Your task to perform on an android device: toggle javascript in the chrome app Image 0: 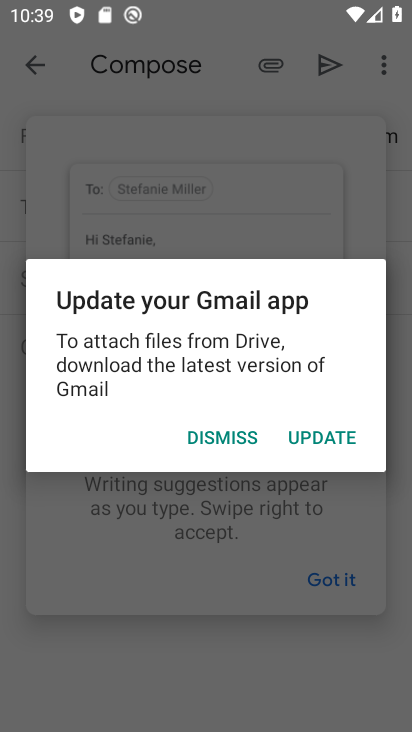
Step 0: click (346, 573)
Your task to perform on an android device: toggle javascript in the chrome app Image 1: 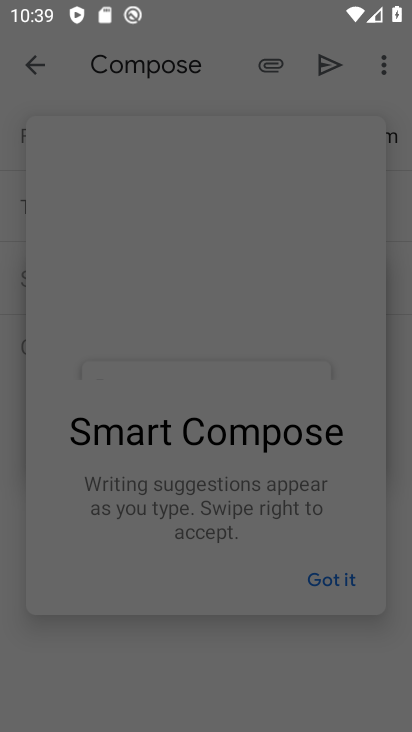
Step 1: press home button
Your task to perform on an android device: toggle javascript in the chrome app Image 2: 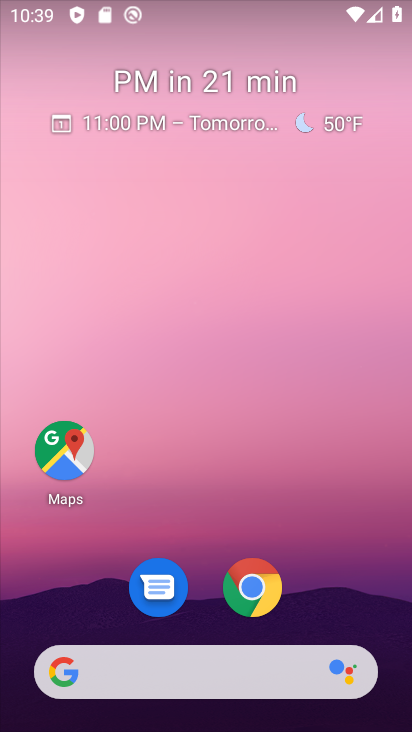
Step 2: click (255, 582)
Your task to perform on an android device: toggle javascript in the chrome app Image 3: 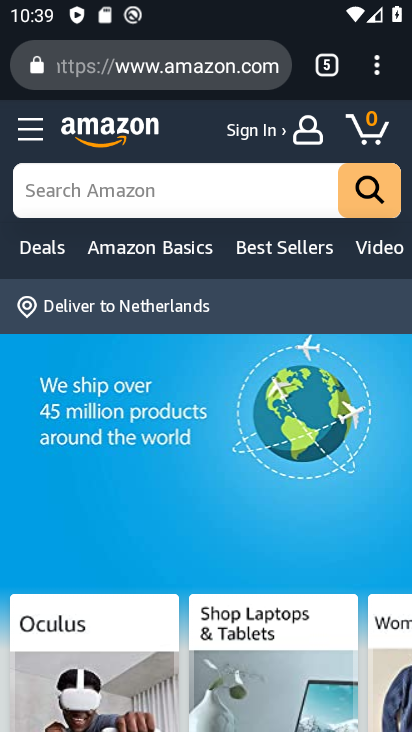
Step 3: click (376, 53)
Your task to perform on an android device: toggle javascript in the chrome app Image 4: 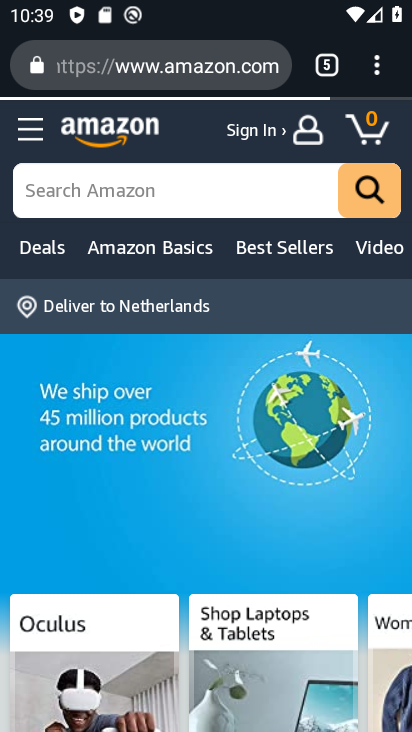
Step 4: drag from (375, 54) to (141, 636)
Your task to perform on an android device: toggle javascript in the chrome app Image 5: 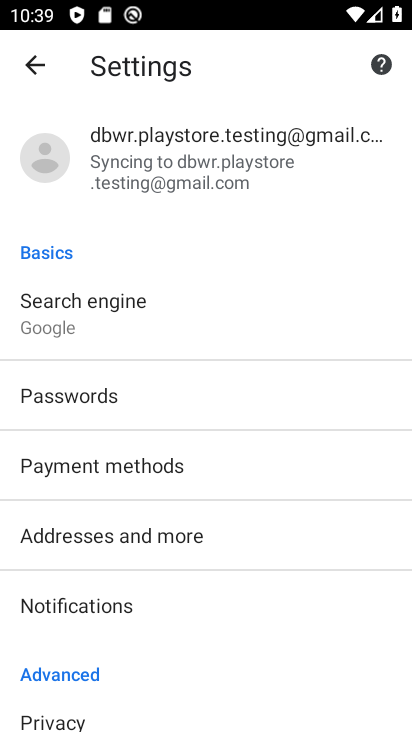
Step 5: drag from (128, 589) to (105, 90)
Your task to perform on an android device: toggle javascript in the chrome app Image 6: 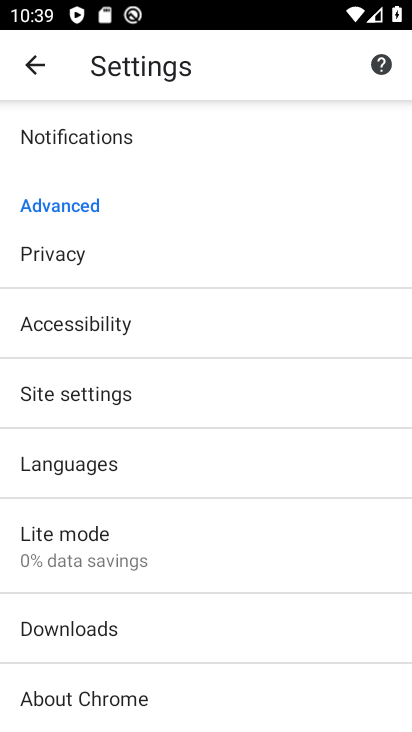
Step 6: click (102, 395)
Your task to perform on an android device: toggle javascript in the chrome app Image 7: 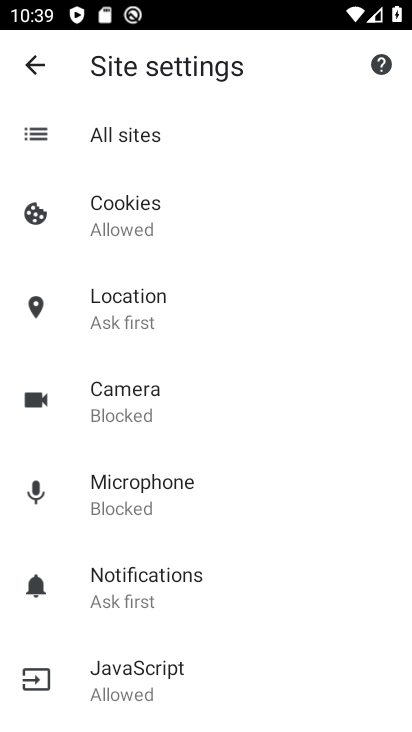
Step 7: drag from (162, 502) to (159, 196)
Your task to perform on an android device: toggle javascript in the chrome app Image 8: 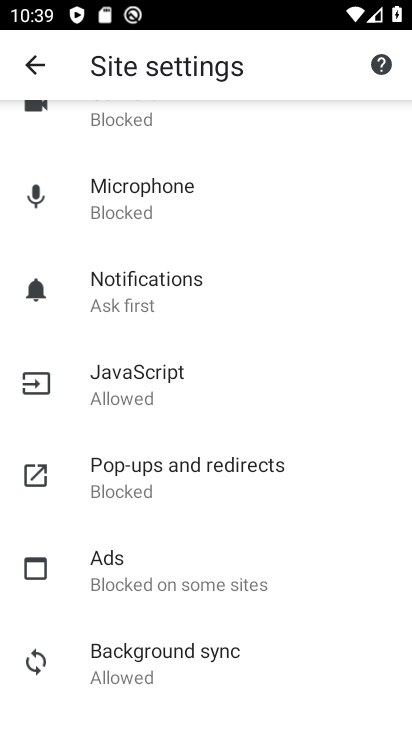
Step 8: click (156, 392)
Your task to perform on an android device: toggle javascript in the chrome app Image 9: 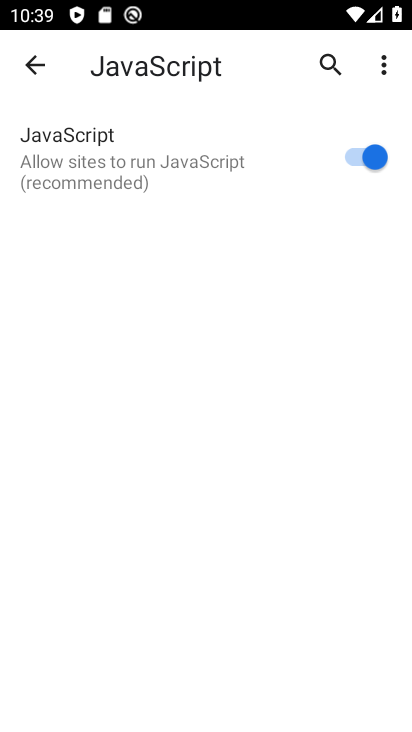
Step 9: click (361, 149)
Your task to perform on an android device: toggle javascript in the chrome app Image 10: 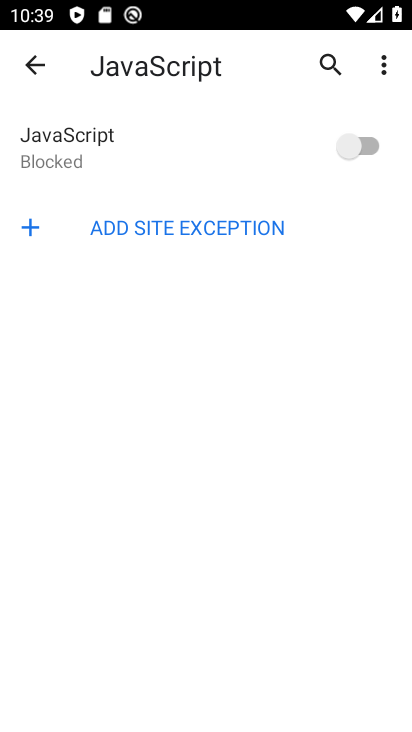
Step 10: task complete